Your task to perform on an android device: star an email in the gmail app Image 0: 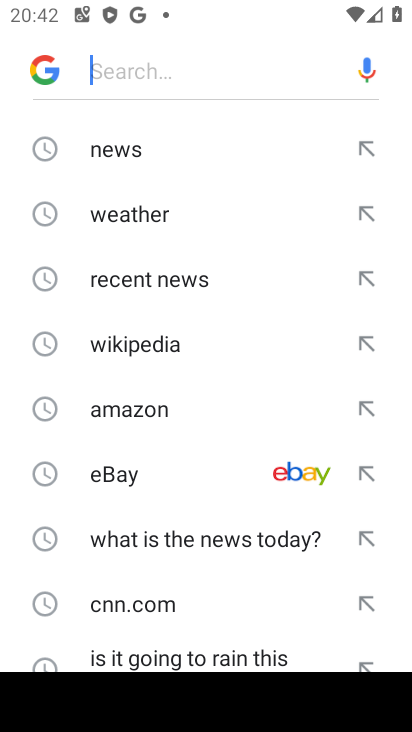
Step 0: press home button
Your task to perform on an android device: star an email in the gmail app Image 1: 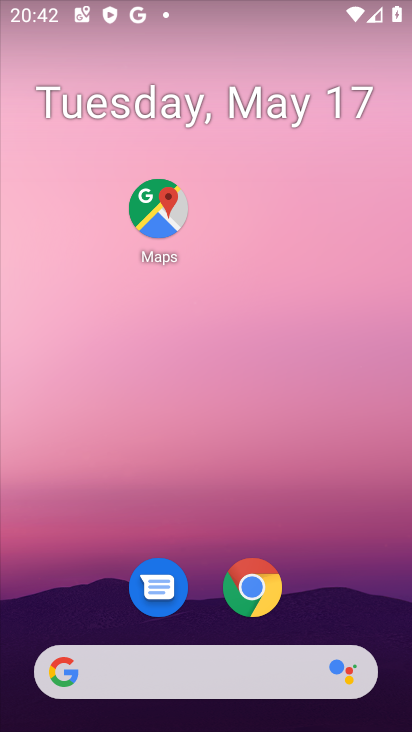
Step 1: drag from (72, 731) to (177, 422)
Your task to perform on an android device: star an email in the gmail app Image 2: 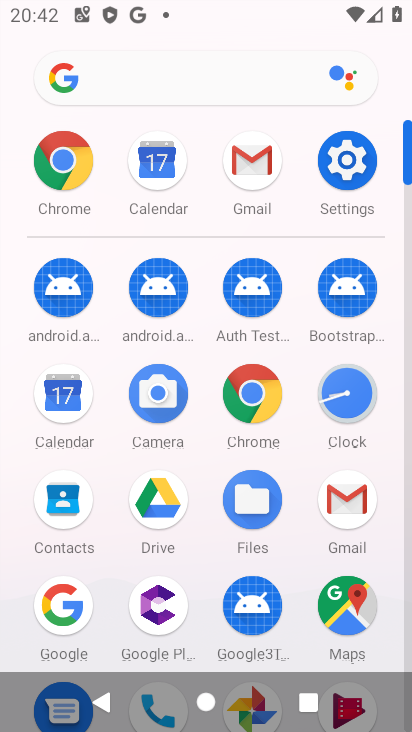
Step 2: click (362, 494)
Your task to perform on an android device: star an email in the gmail app Image 3: 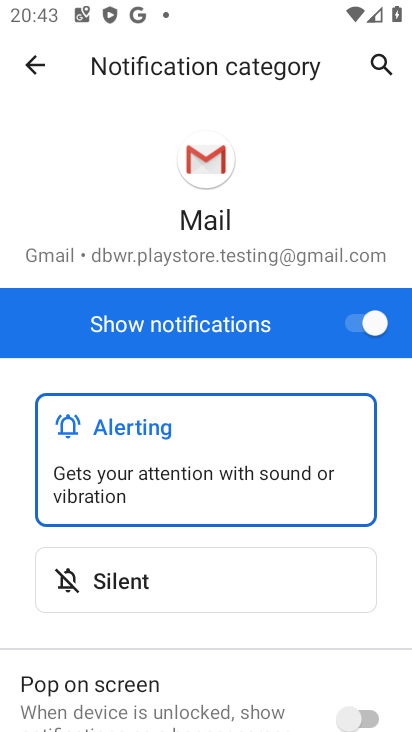
Step 3: press home button
Your task to perform on an android device: star an email in the gmail app Image 4: 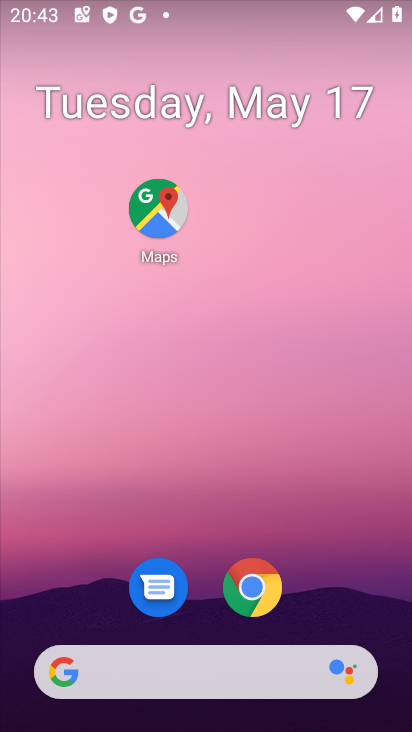
Step 4: drag from (28, 654) to (287, 262)
Your task to perform on an android device: star an email in the gmail app Image 5: 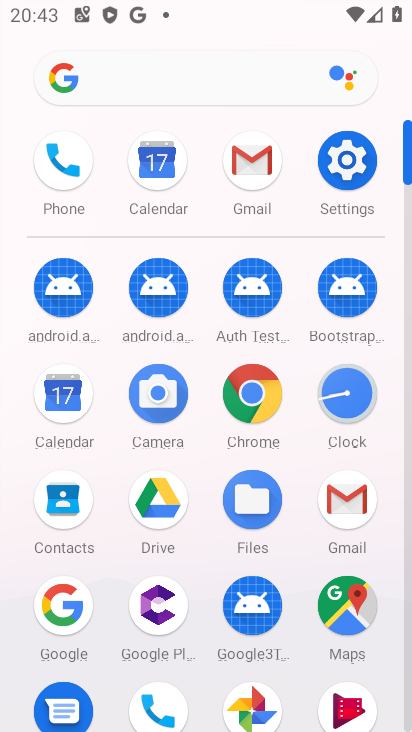
Step 5: click (240, 162)
Your task to perform on an android device: star an email in the gmail app Image 6: 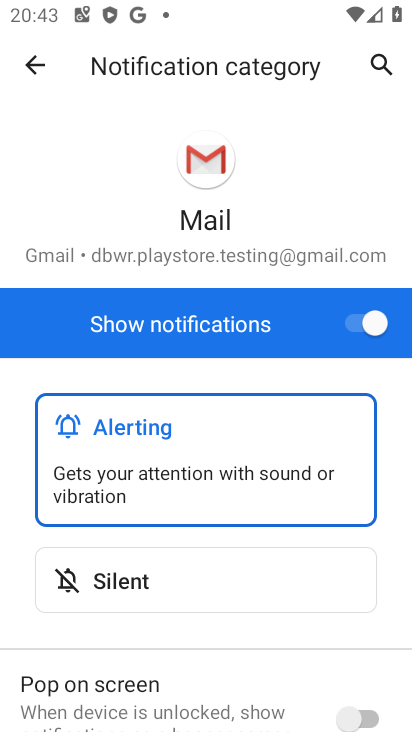
Step 6: click (32, 57)
Your task to perform on an android device: star an email in the gmail app Image 7: 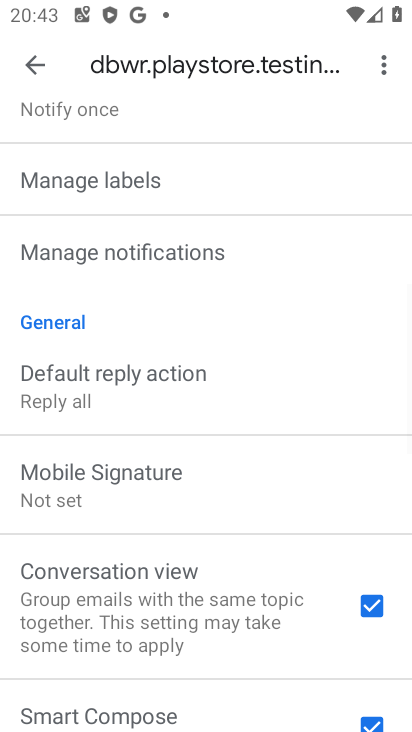
Step 7: click (30, 62)
Your task to perform on an android device: star an email in the gmail app Image 8: 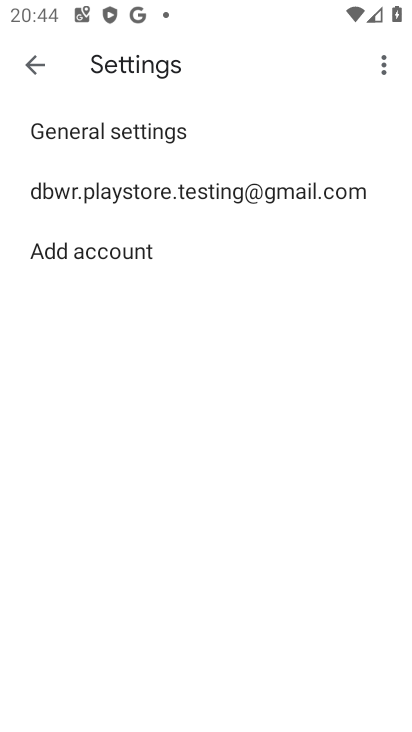
Step 8: click (34, 77)
Your task to perform on an android device: star an email in the gmail app Image 9: 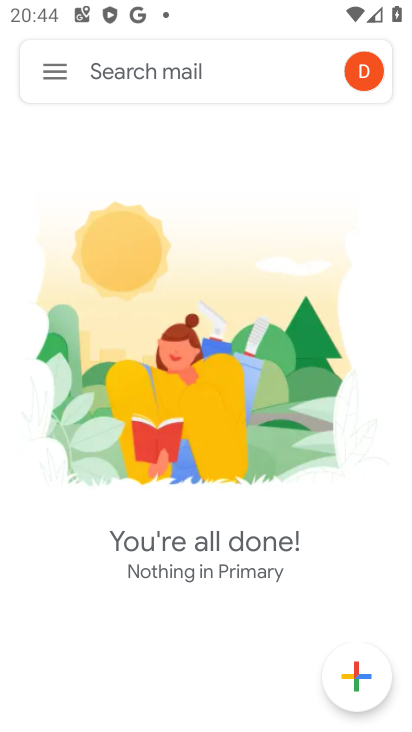
Step 9: click (67, 76)
Your task to perform on an android device: star an email in the gmail app Image 10: 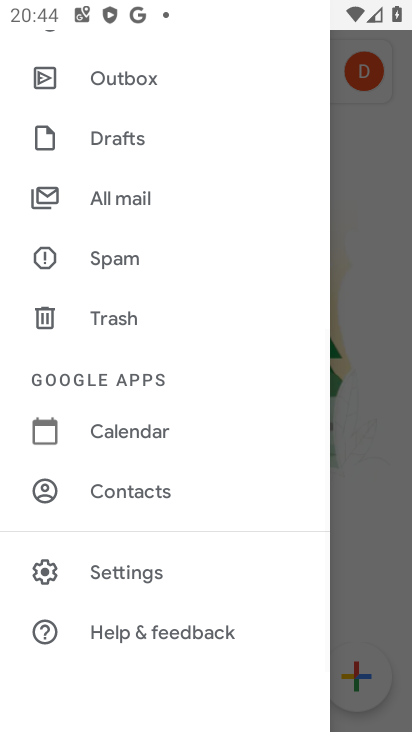
Step 10: drag from (181, 145) to (137, 610)
Your task to perform on an android device: star an email in the gmail app Image 11: 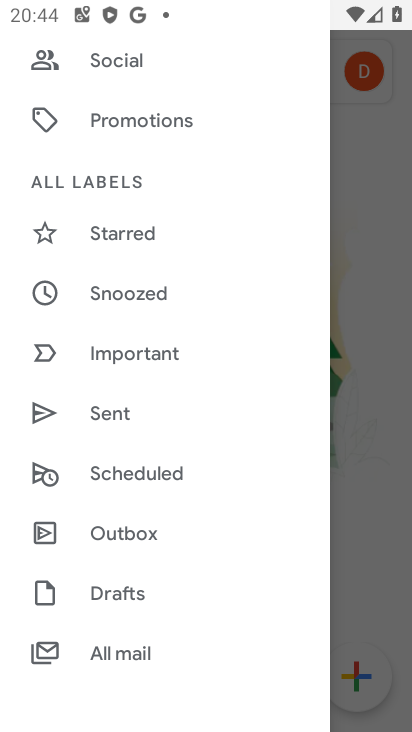
Step 11: click (86, 657)
Your task to perform on an android device: star an email in the gmail app Image 12: 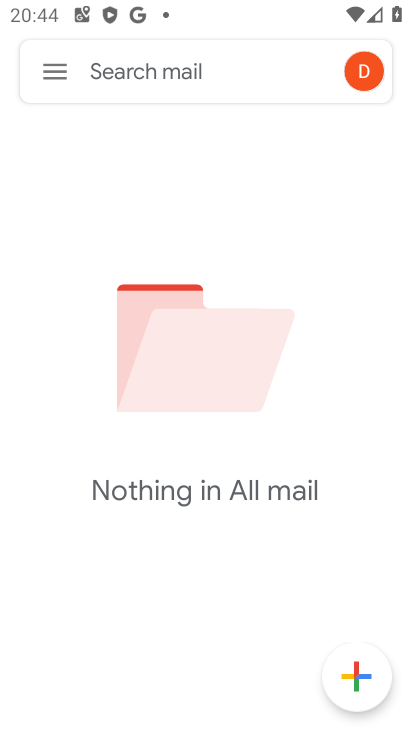
Step 12: task complete